Your task to perform on an android device: Open Google Image 0: 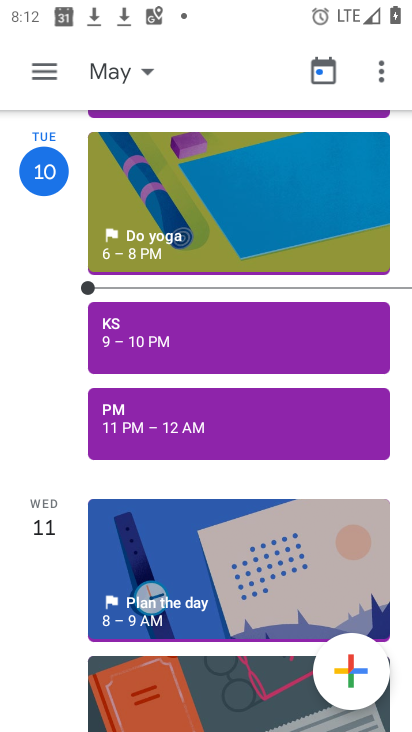
Step 0: press home button
Your task to perform on an android device: Open Google Image 1: 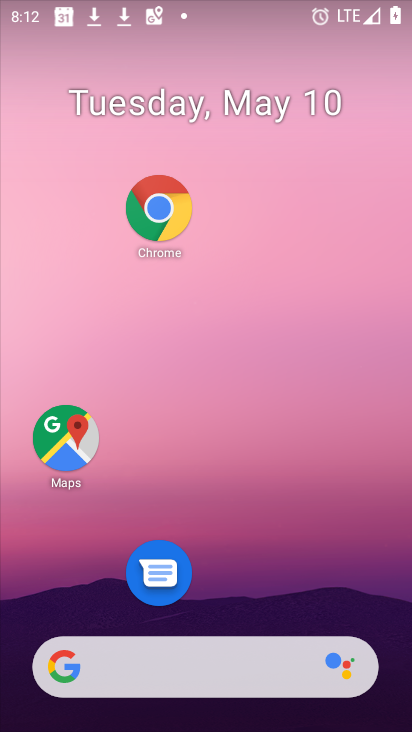
Step 1: drag from (270, 711) to (370, 236)
Your task to perform on an android device: Open Google Image 2: 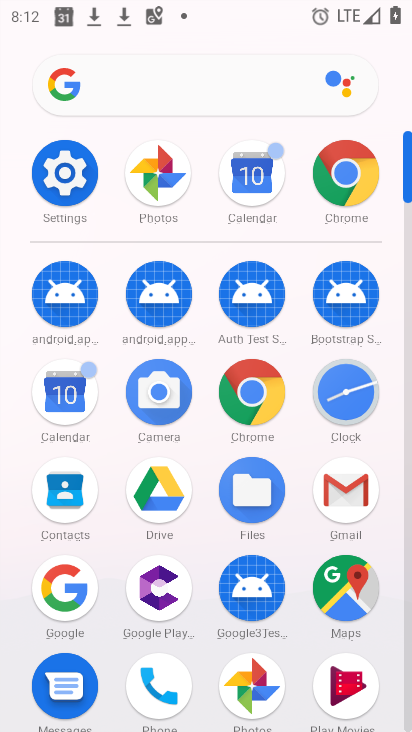
Step 2: click (69, 85)
Your task to perform on an android device: Open Google Image 3: 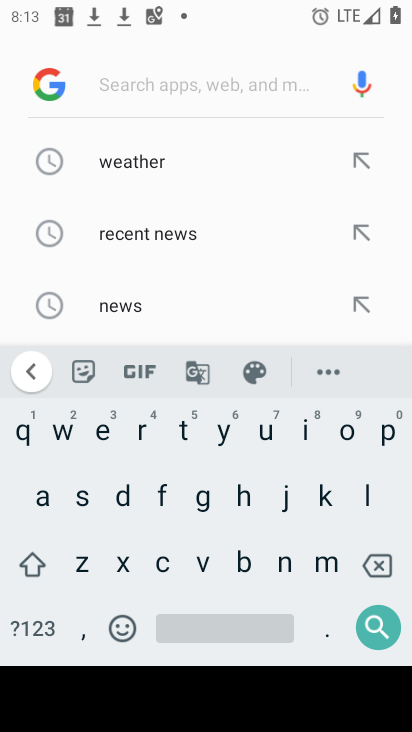
Step 3: click (53, 79)
Your task to perform on an android device: Open Google Image 4: 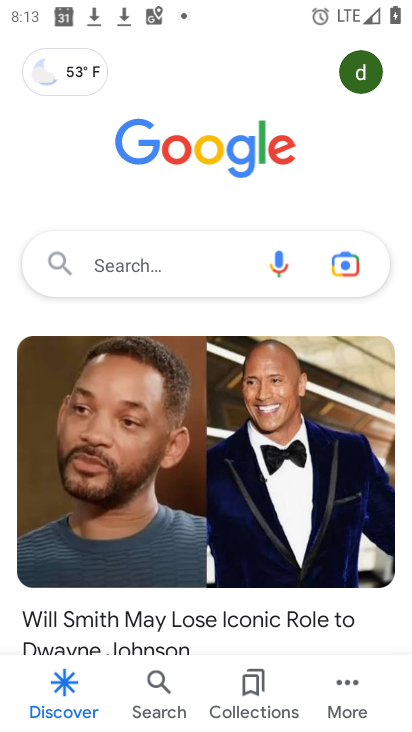
Step 4: task complete